Your task to perform on an android device: Open calendar and show me the third week of next month Image 0: 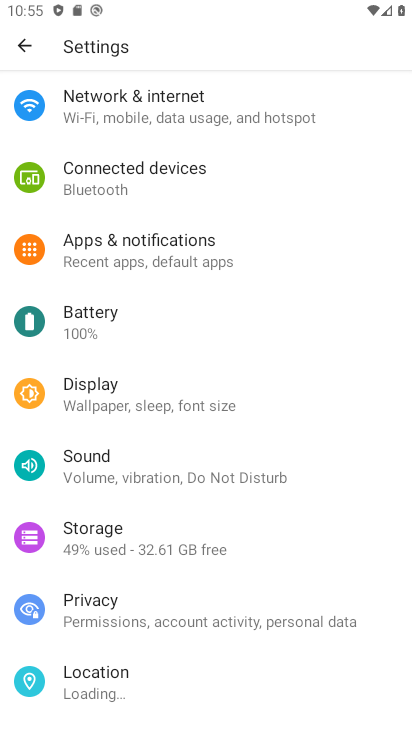
Step 0: press home button
Your task to perform on an android device: Open calendar and show me the third week of next month Image 1: 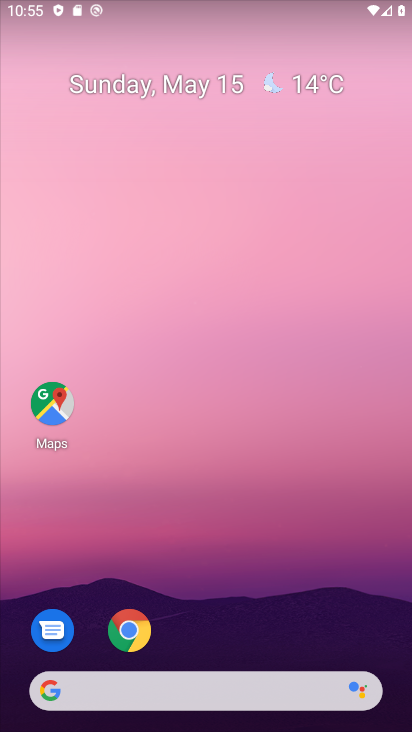
Step 1: drag from (27, 498) to (232, 244)
Your task to perform on an android device: Open calendar and show me the third week of next month Image 2: 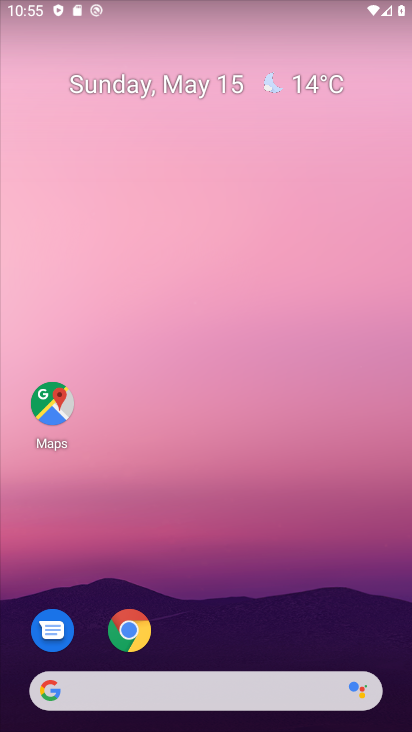
Step 2: drag from (12, 663) to (297, 252)
Your task to perform on an android device: Open calendar and show me the third week of next month Image 3: 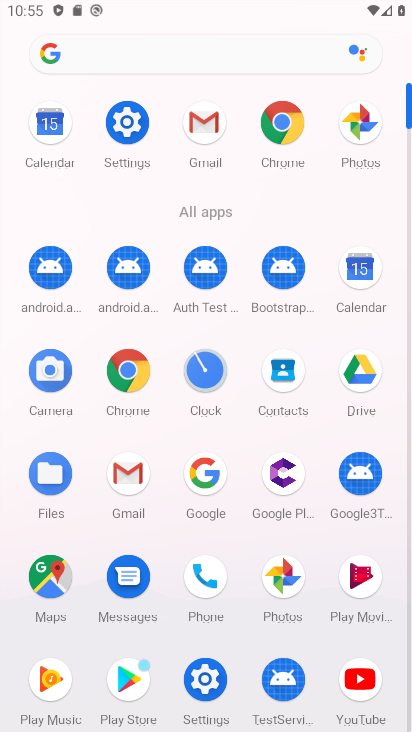
Step 3: click (370, 268)
Your task to perform on an android device: Open calendar and show me the third week of next month Image 4: 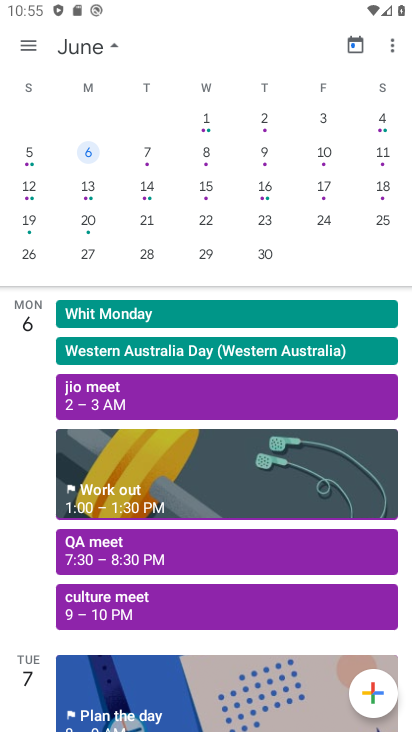
Step 4: click (206, 189)
Your task to perform on an android device: Open calendar and show me the third week of next month Image 5: 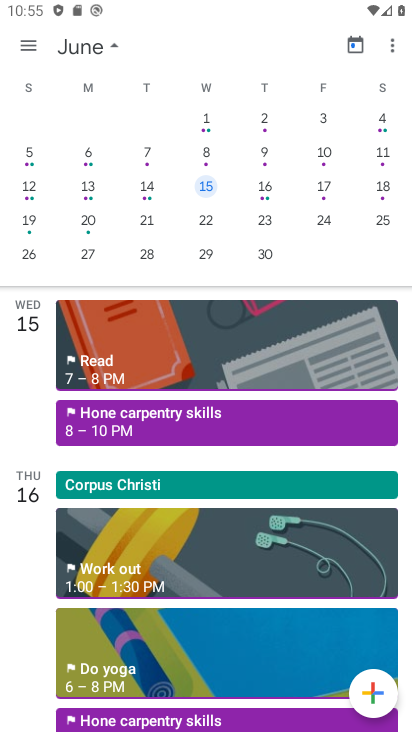
Step 5: task complete